Your task to perform on an android device: Go to Android settings Image 0: 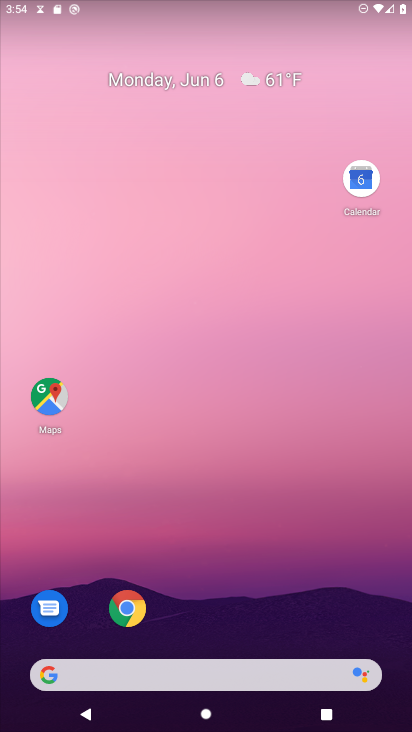
Step 0: drag from (260, 566) to (252, 38)
Your task to perform on an android device: Go to Android settings Image 1: 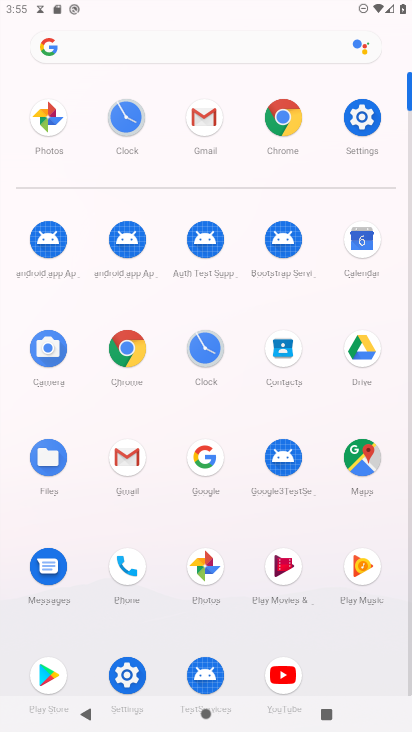
Step 1: click (354, 117)
Your task to perform on an android device: Go to Android settings Image 2: 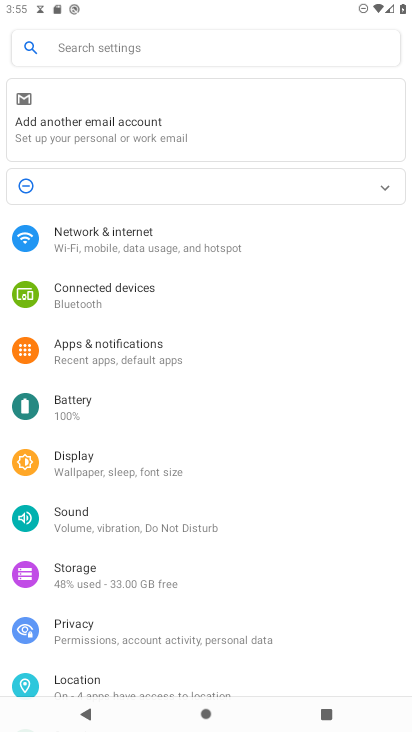
Step 2: drag from (231, 557) to (365, 144)
Your task to perform on an android device: Go to Android settings Image 3: 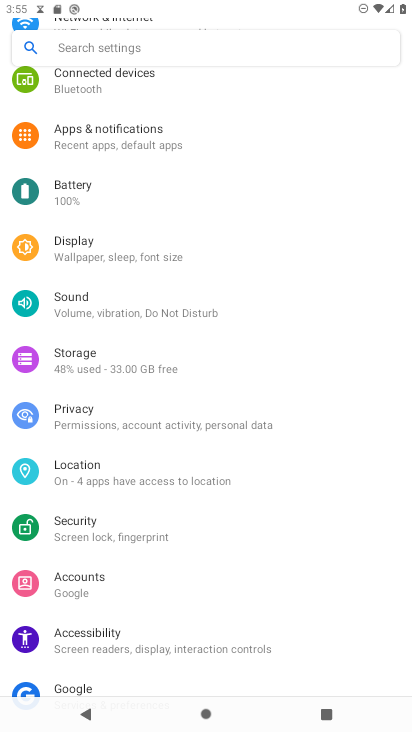
Step 3: drag from (195, 647) to (228, 15)
Your task to perform on an android device: Go to Android settings Image 4: 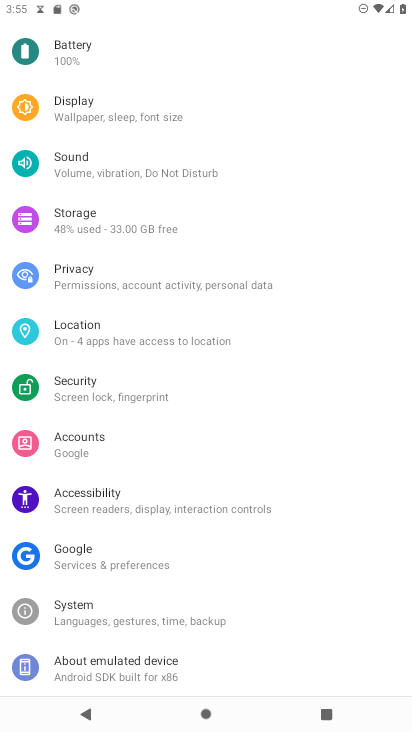
Step 4: click (152, 615)
Your task to perform on an android device: Go to Android settings Image 5: 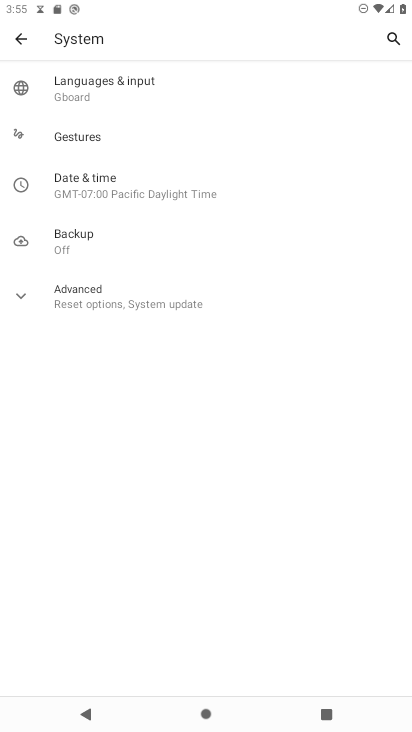
Step 5: task complete